Your task to perform on an android device: toggle wifi Image 0: 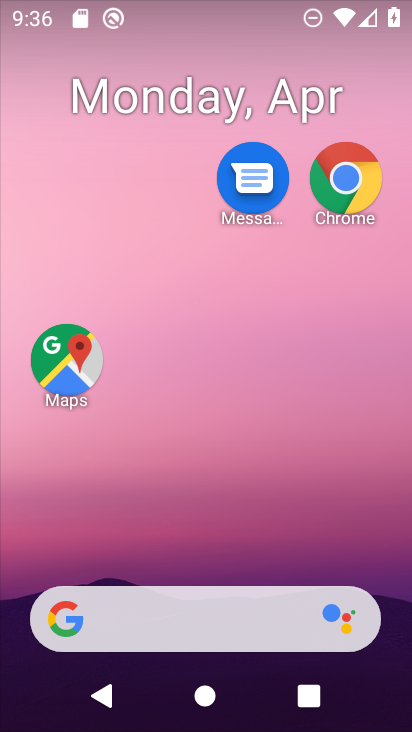
Step 0: drag from (252, 624) to (275, 213)
Your task to perform on an android device: toggle wifi Image 1: 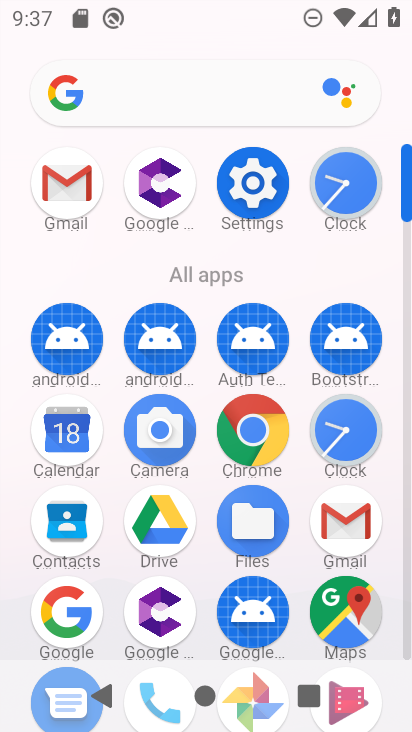
Step 1: click (256, 201)
Your task to perform on an android device: toggle wifi Image 2: 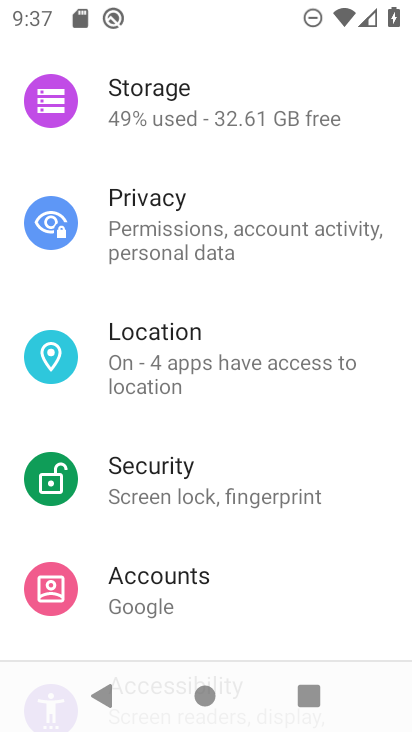
Step 2: drag from (255, 202) to (286, 662)
Your task to perform on an android device: toggle wifi Image 3: 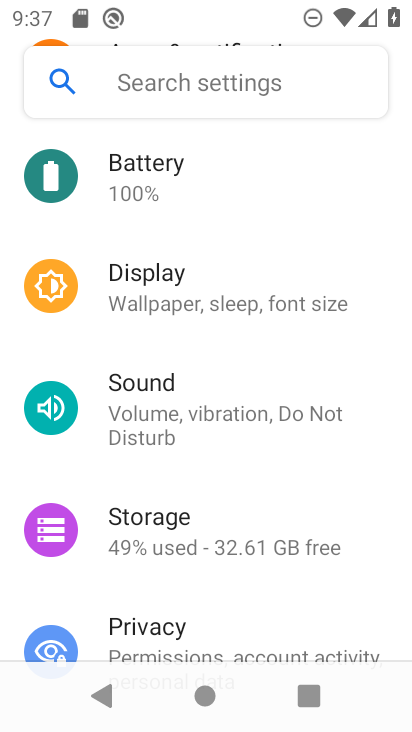
Step 3: drag from (264, 271) to (230, 681)
Your task to perform on an android device: toggle wifi Image 4: 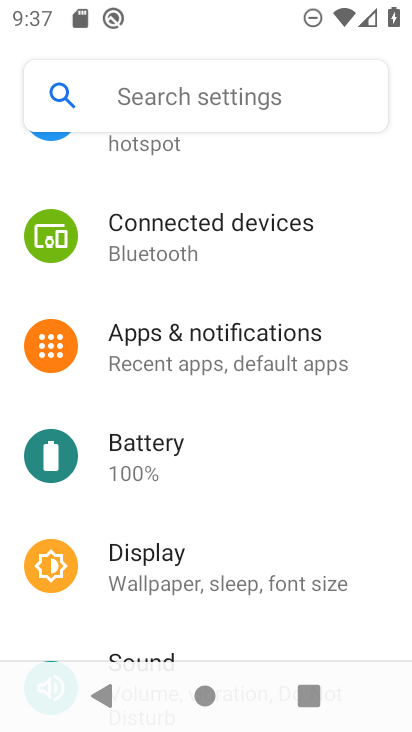
Step 4: drag from (216, 312) to (210, 611)
Your task to perform on an android device: toggle wifi Image 5: 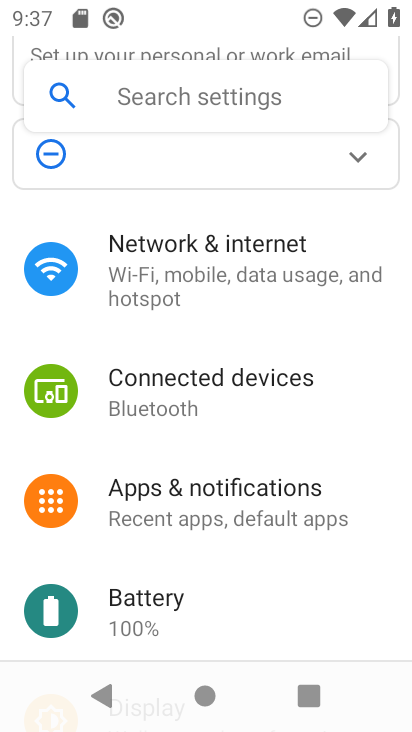
Step 5: click (227, 309)
Your task to perform on an android device: toggle wifi Image 6: 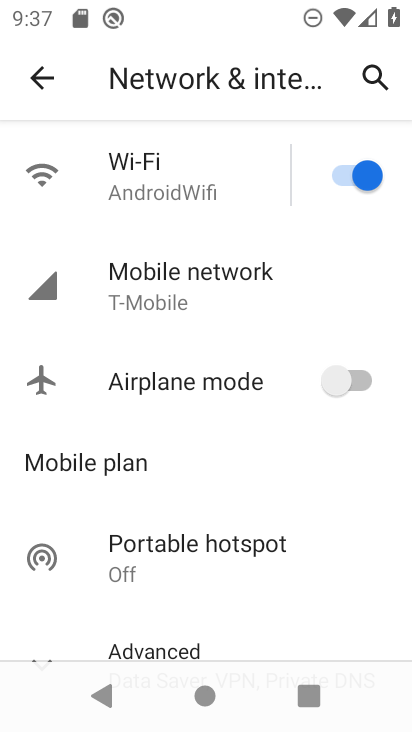
Step 6: click (348, 173)
Your task to perform on an android device: toggle wifi Image 7: 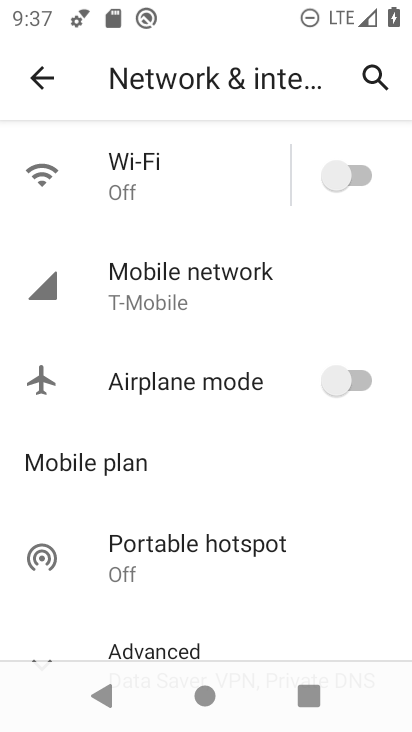
Step 7: task complete